Your task to perform on an android device: turn on translation in the chrome app Image 0: 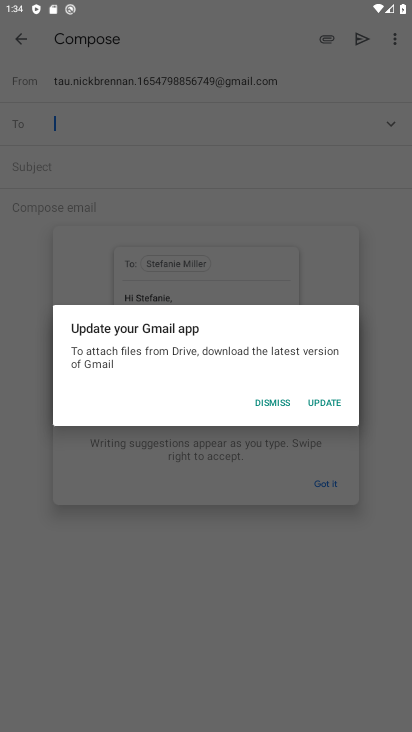
Step 0: press home button
Your task to perform on an android device: turn on translation in the chrome app Image 1: 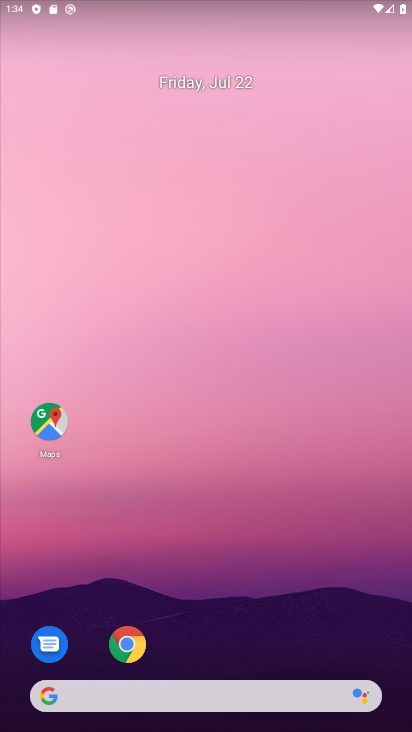
Step 1: click (126, 647)
Your task to perform on an android device: turn on translation in the chrome app Image 2: 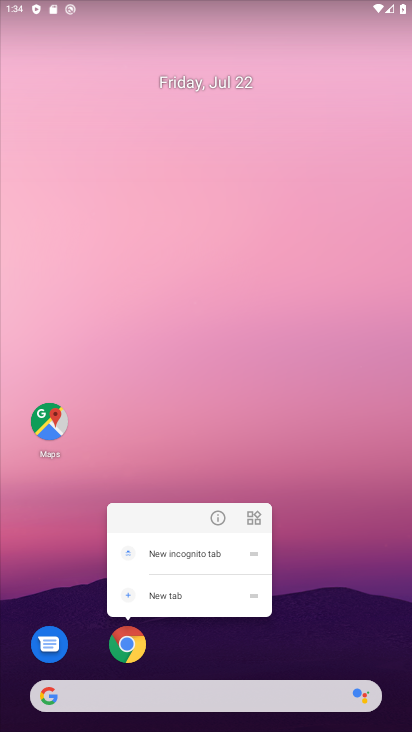
Step 2: click (130, 649)
Your task to perform on an android device: turn on translation in the chrome app Image 3: 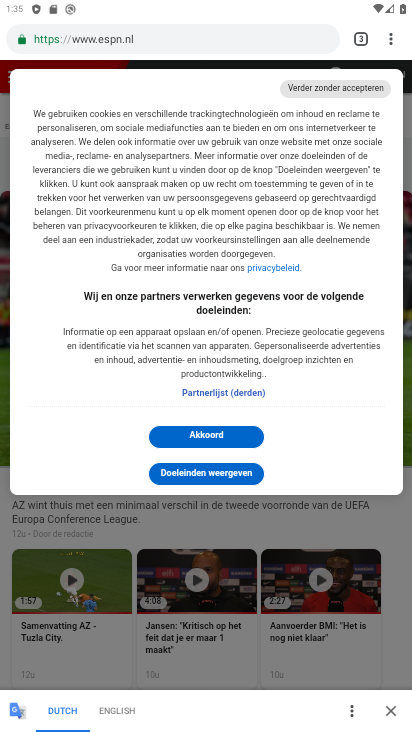
Step 3: click (398, 37)
Your task to perform on an android device: turn on translation in the chrome app Image 4: 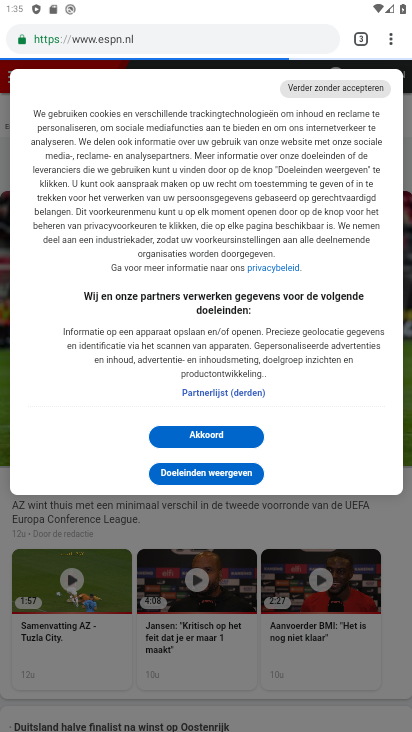
Step 4: click (393, 37)
Your task to perform on an android device: turn on translation in the chrome app Image 5: 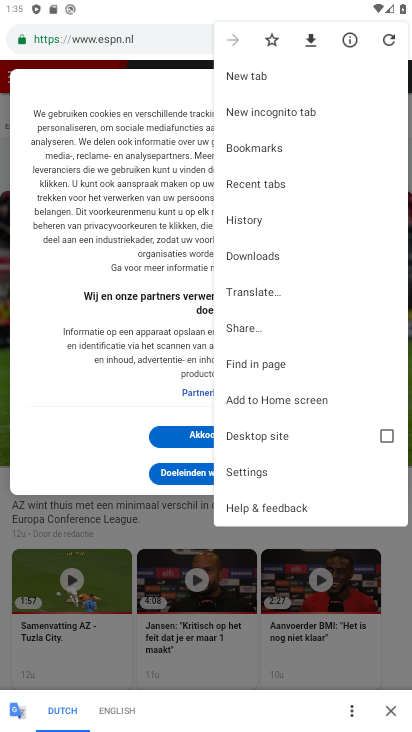
Step 5: click (262, 475)
Your task to perform on an android device: turn on translation in the chrome app Image 6: 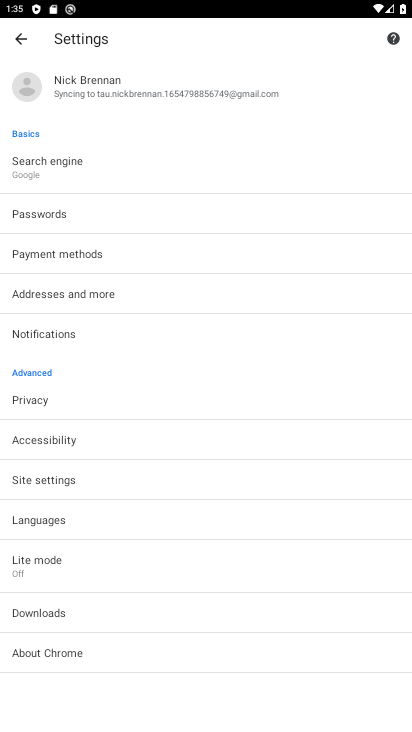
Step 6: click (74, 556)
Your task to perform on an android device: turn on translation in the chrome app Image 7: 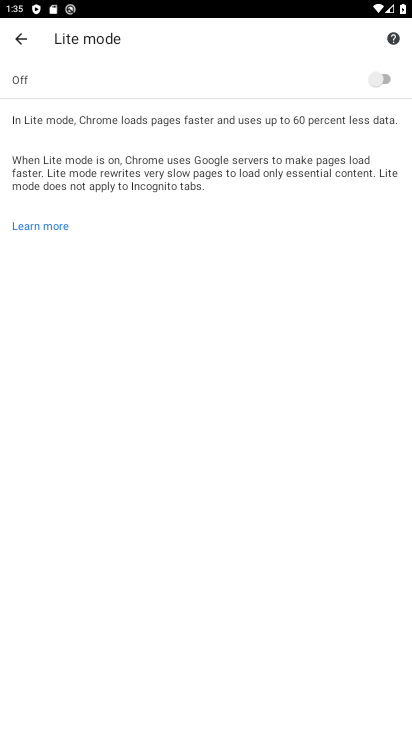
Step 7: click (386, 76)
Your task to perform on an android device: turn on translation in the chrome app Image 8: 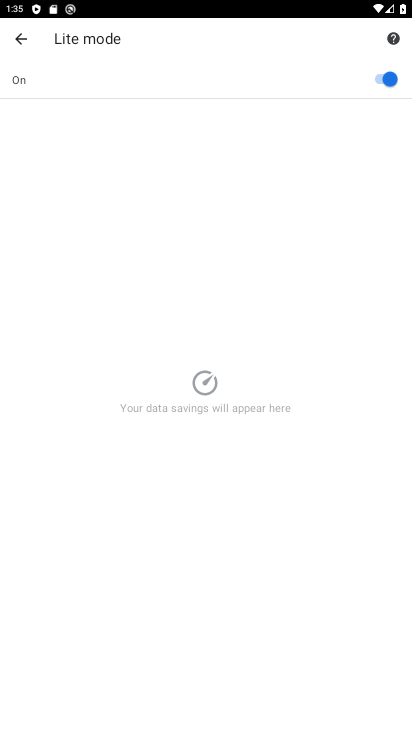
Step 8: task complete